Your task to perform on an android device: toggle location history Image 0: 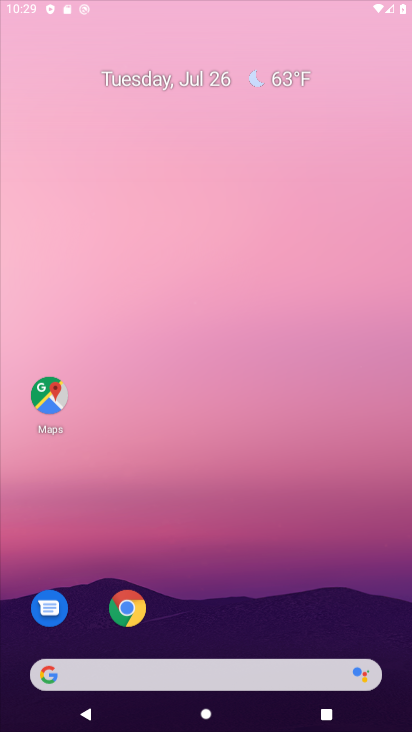
Step 0: press home button
Your task to perform on an android device: toggle location history Image 1: 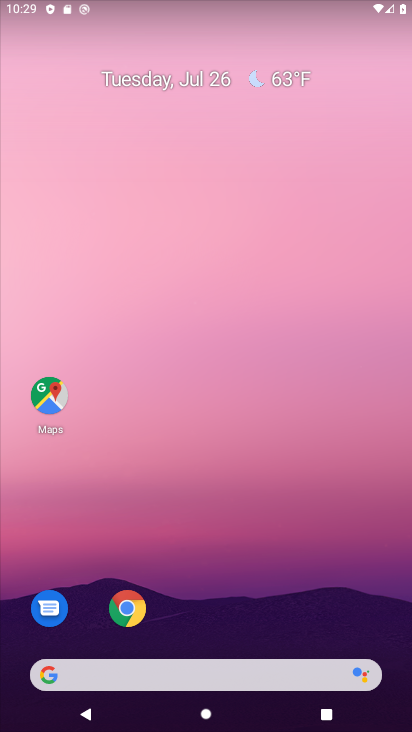
Step 1: drag from (245, 644) to (272, 221)
Your task to perform on an android device: toggle location history Image 2: 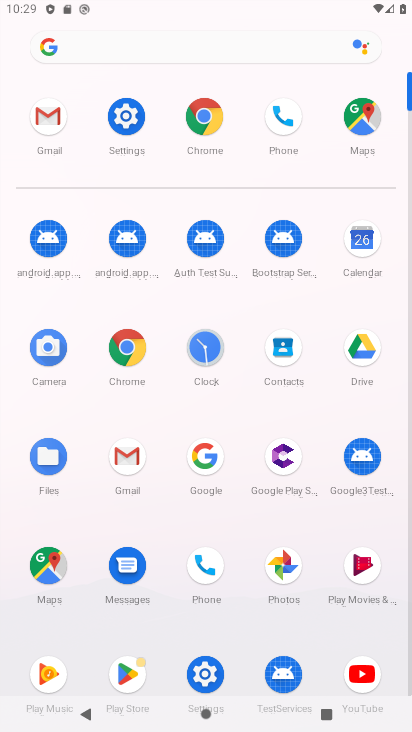
Step 2: click (118, 116)
Your task to perform on an android device: toggle location history Image 3: 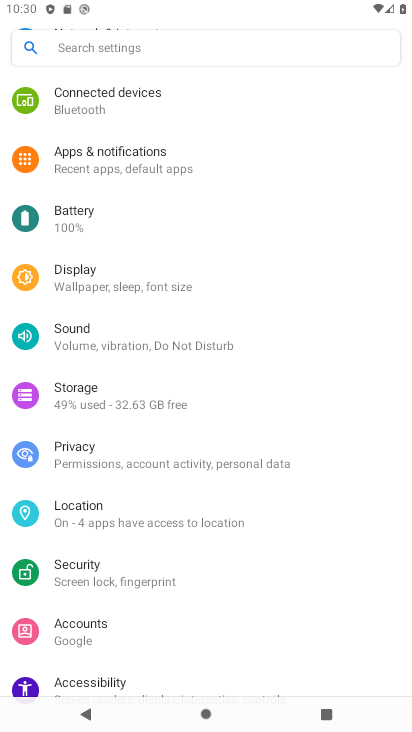
Step 3: click (85, 518)
Your task to perform on an android device: toggle location history Image 4: 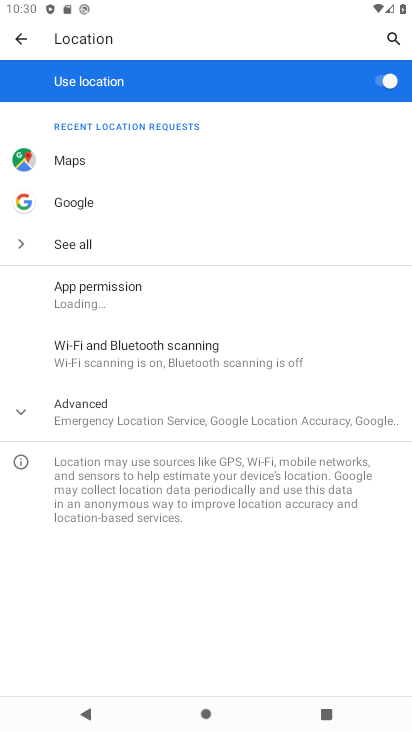
Step 4: click (101, 420)
Your task to perform on an android device: toggle location history Image 5: 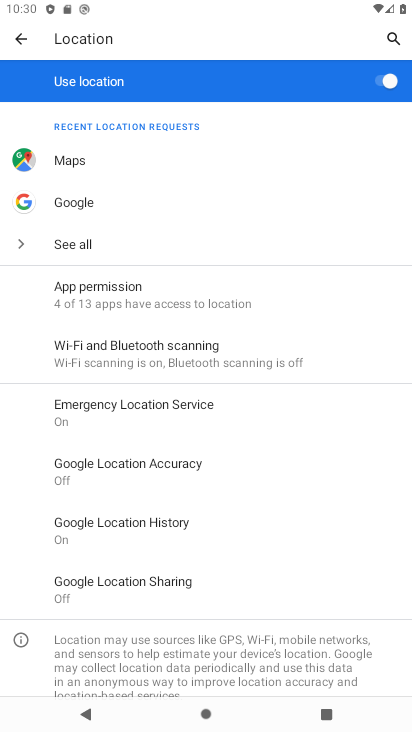
Step 5: click (159, 518)
Your task to perform on an android device: toggle location history Image 6: 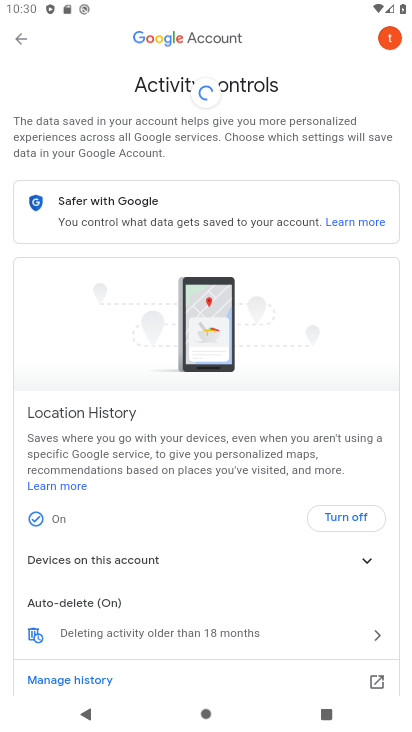
Step 6: click (351, 514)
Your task to perform on an android device: toggle location history Image 7: 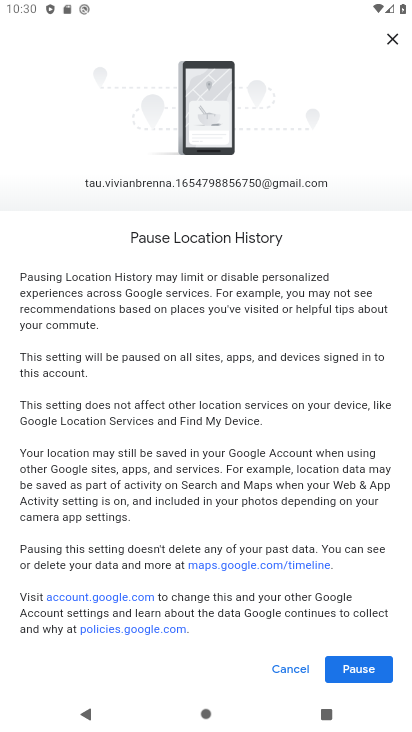
Step 7: click (349, 673)
Your task to perform on an android device: toggle location history Image 8: 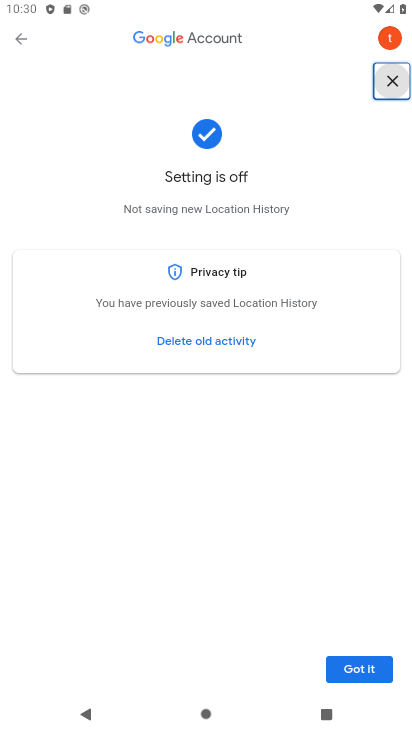
Step 8: click (349, 673)
Your task to perform on an android device: toggle location history Image 9: 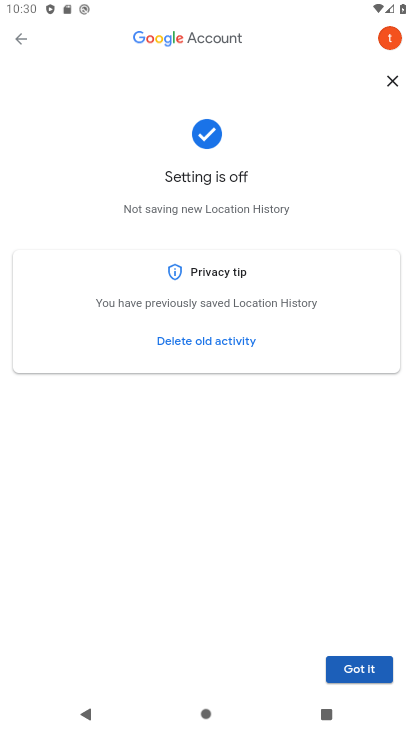
Step 9: click (384, 672)
Your task to perform on an android device: toggle location history Image 10: 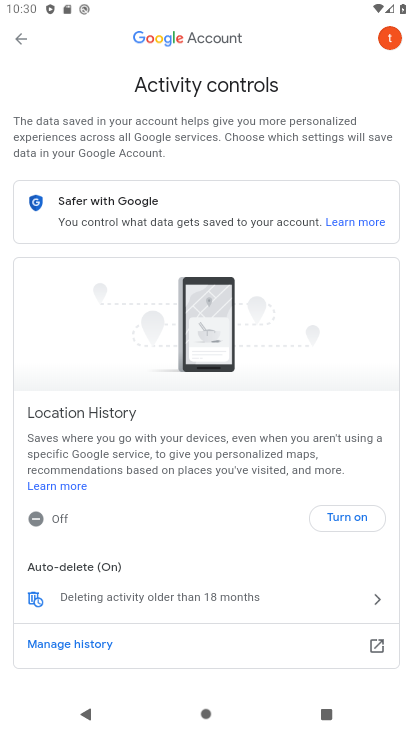
Step 10: task complete